Your task to perform on an android device: Go to network settings Image 0: 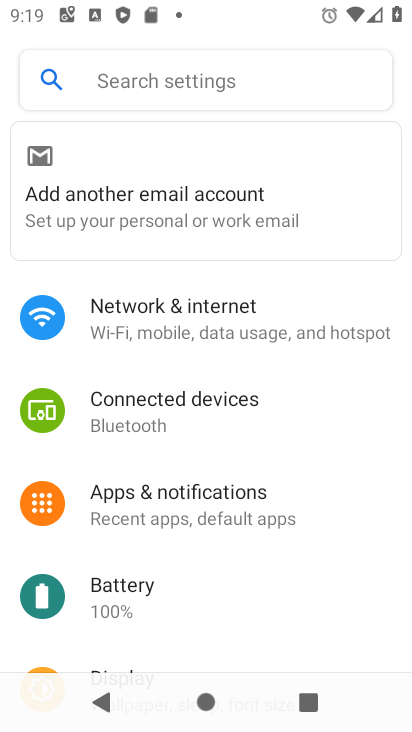
Step 0: click (241, 302)
Your task to perform on an android device: Go to network settings Image 1: 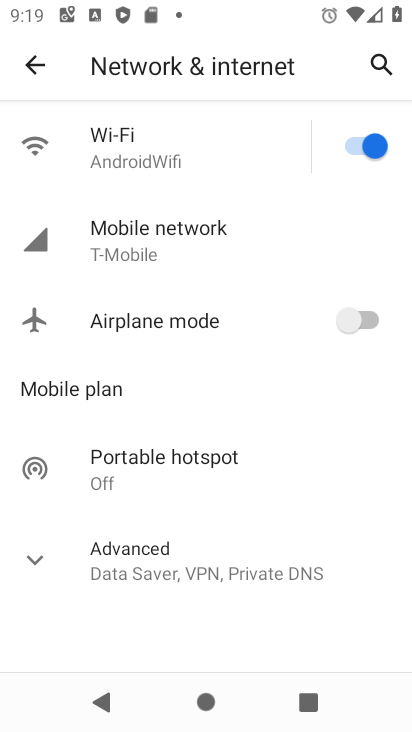
Step 1: click (28, 555)
Your task to perform on an android device: Go to network settings Image 2: 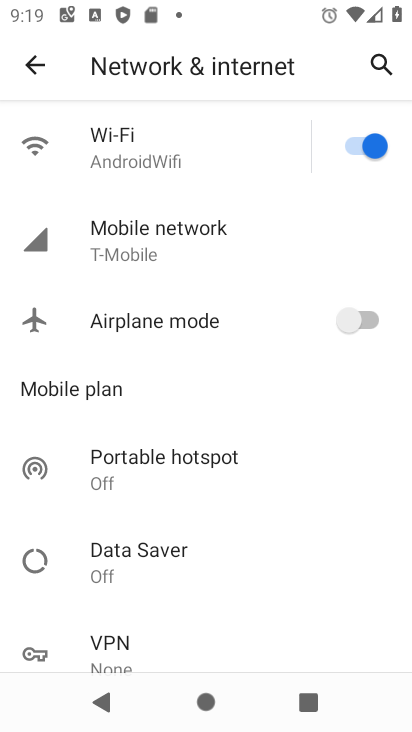
Step 2: click (132, 145)
Your task to perform on an android device: Go to network settings Image 3: 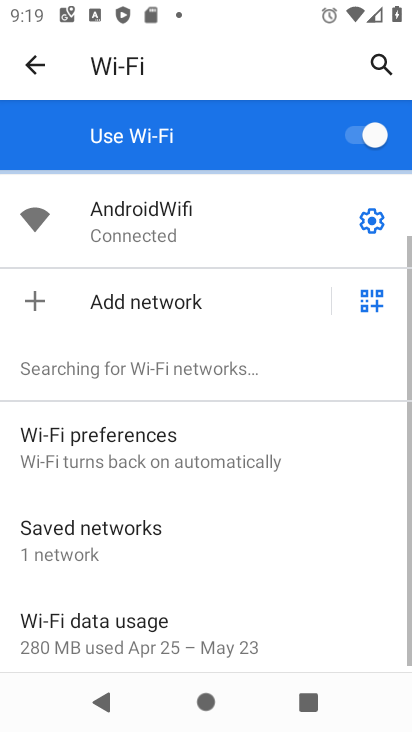
Step 3: task complete